Your task to perform on an android device: search for starred emails in the gmail app Image 0: 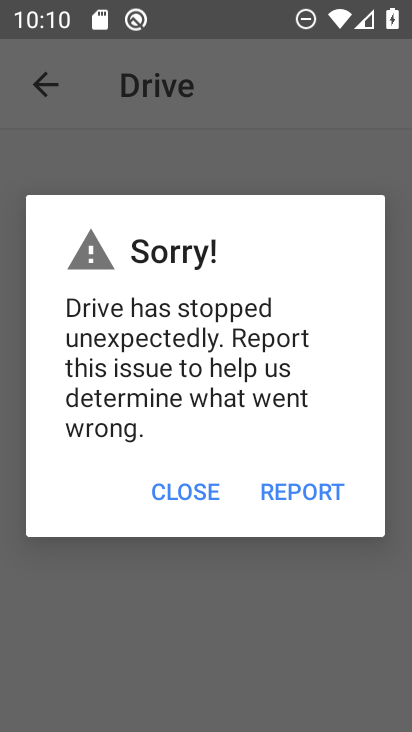
Step 0: press home button
Your task to perform on an android device: search for starred emails in the gmail app Image 1: 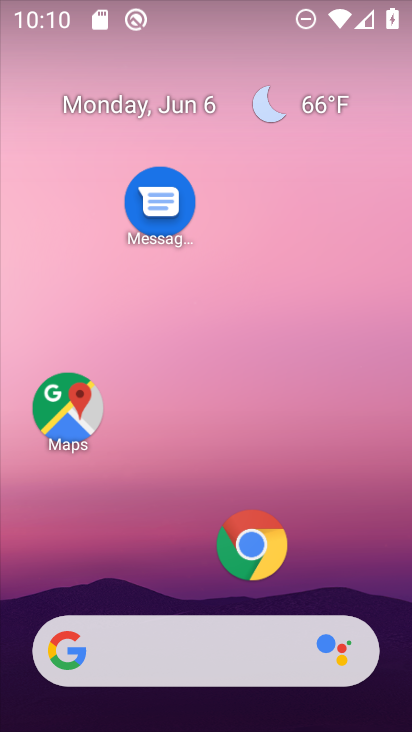
Step 1: drag from (151, 592) to (225, 91)
Your task to perform on an android device: search for starred emails in the gmail app Image 2: 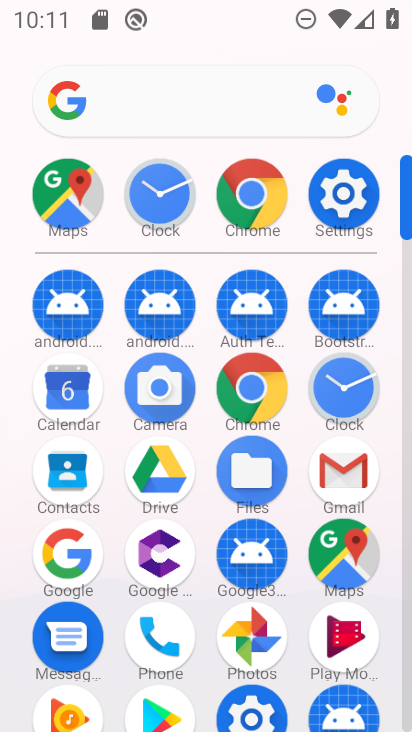
Step 2: click (344, 473)
Your task to perform on an android device: search for starred emails in the gmail app Image 3: 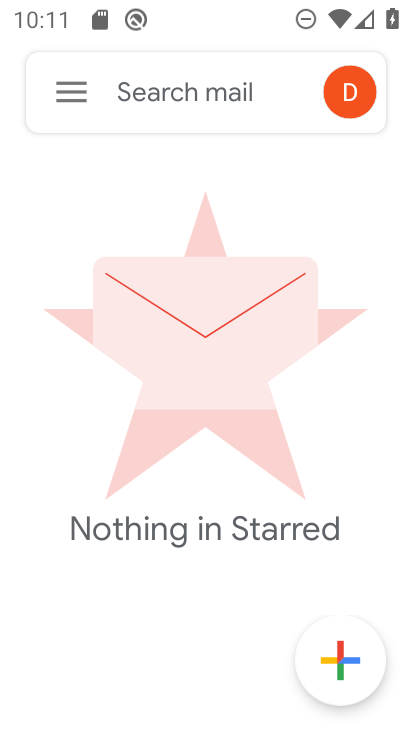
Step 3: click (75, 95)
Your task to perform on an android device: search for starred emails in the gmail app Image 4: 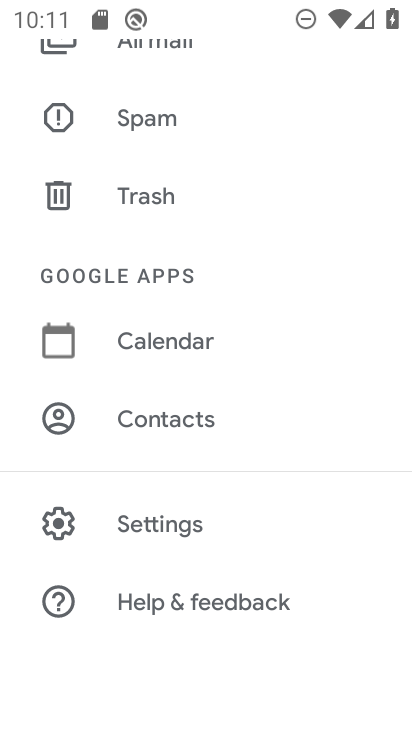
Step 4: drag from (126, 231) to (106, 703)
Your task to perform on an android device: search for starred emails in the gmail app Image 5: 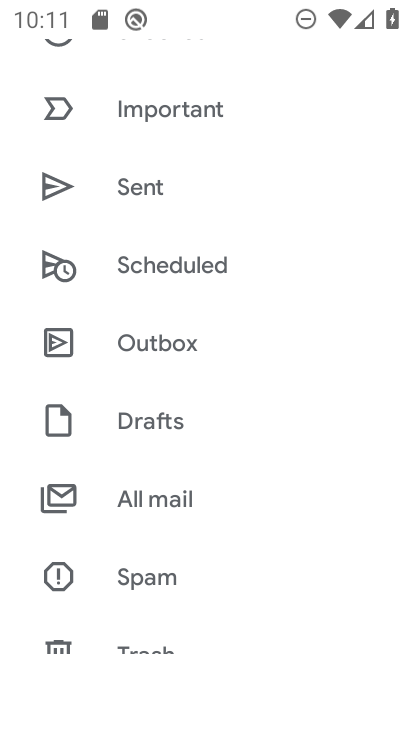
Step 5: drag from (163, 271) to (141, 617)
Your task to perform on an android device: search for starred emails in the gmail app Image 6: 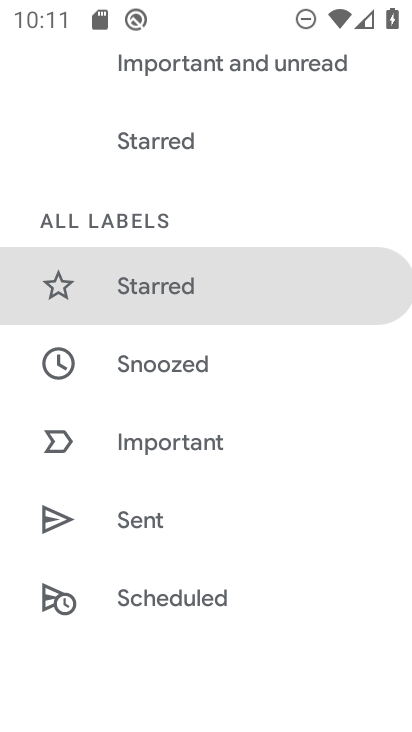
Step 6: click (136, 302)
Your task to perform on an android device: search for starred emails in the gmail app Image 7: 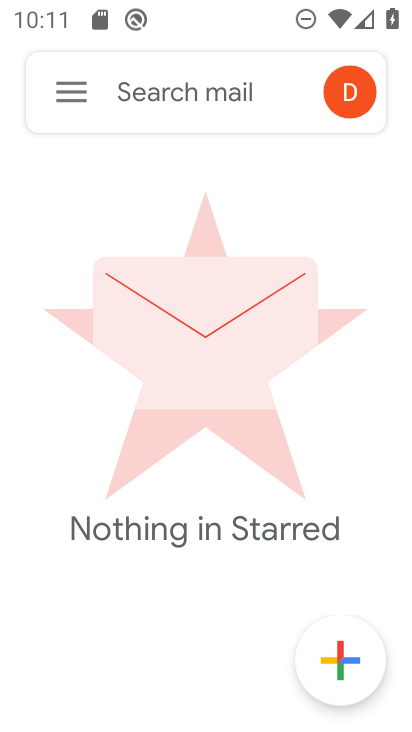
Step 7: task complete